Your task to perform on an android device: Open Youtube and go to "Your channel" Image 0: 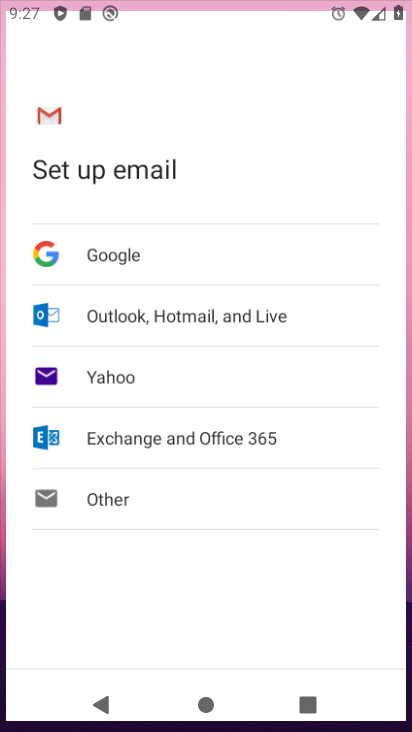
Step 0: drag from (258, 704) to (201, 136)
Your task to perform on an android device: Open Youtube and go to "Your channel" Image 1: 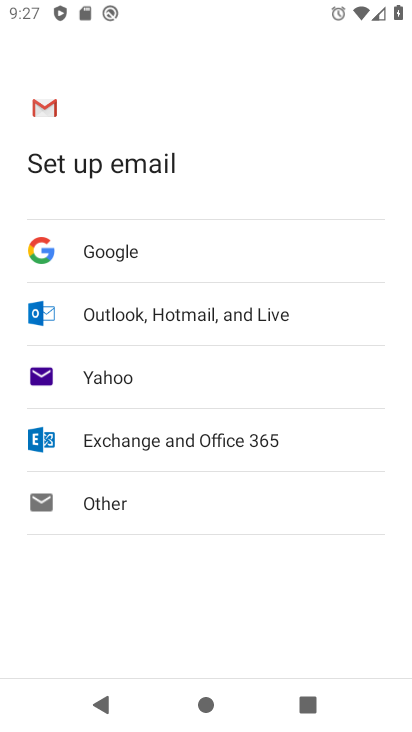
Step 1: press back button
Your task to perform on an android device: Open Youtube and go to "Your channel" Image 2: 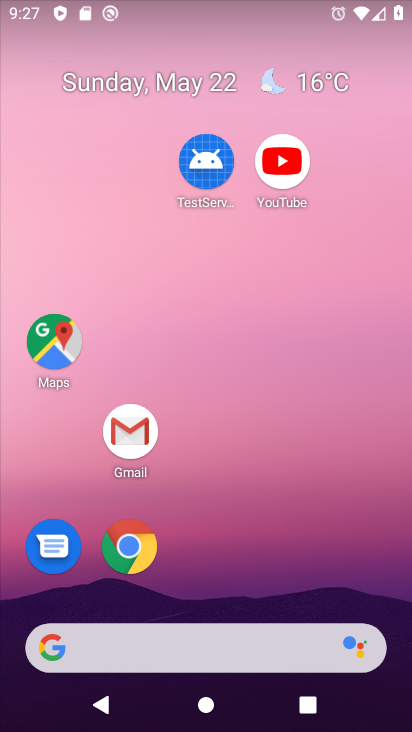
Step 2: drag from (259, 709) to (221, 97)
Your task to perform on an android device: Open Youtube and go to "Your channel" Image 3: 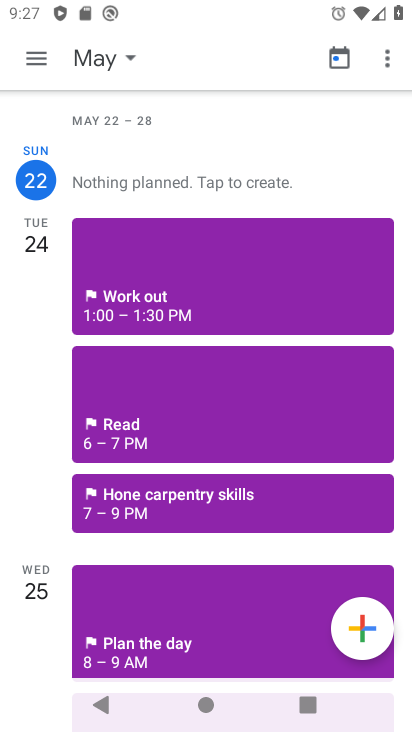
Step 3: press home button
Your task to perform on an android device: Open Youtube and go to "Your channel" Image 4: 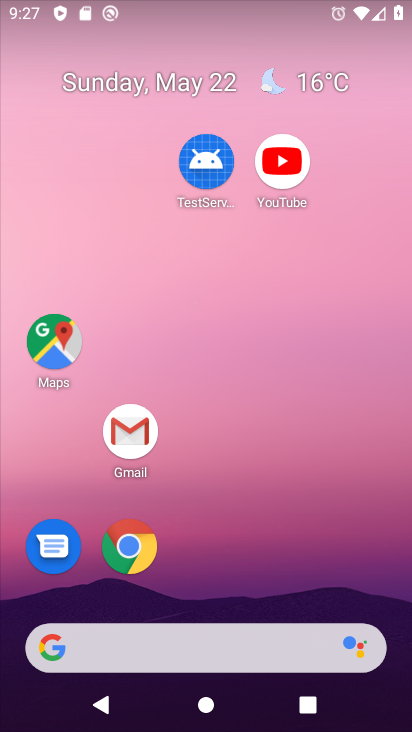
Step 4: drag from (251, 640) to (168, 22)
Your task to perform on an android device: Open Youtube and go to "Your channel" Image 5: 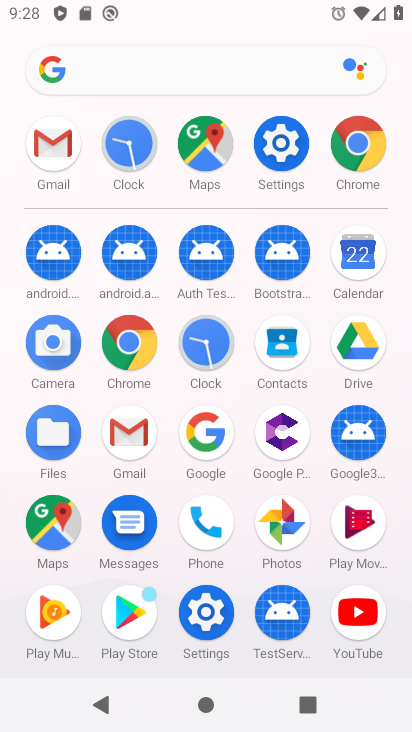
Step 5: click (359, 621)
Your task to perform on an android device: Open Youtube and go to "Your channel" Image 6: 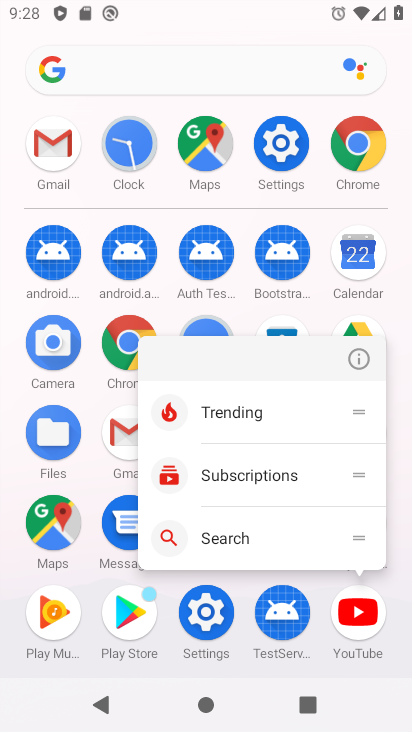
Step 6: click (359, 621)
Your task to perform on an android device: Open Youtube and go to "Your channel" Image 7: 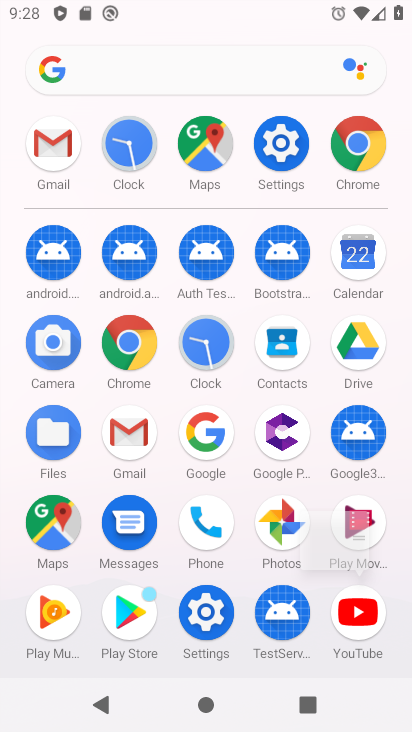
Step 7: click (359, 621)
Your task to perform on an android device: Open Youtube and go to "Your channel" Image 8: 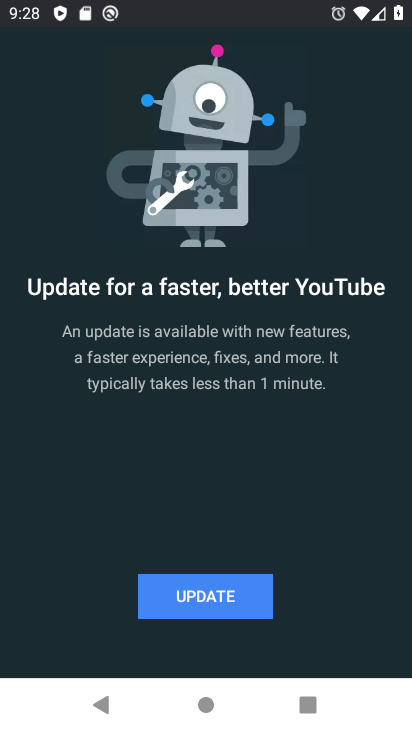
Step 8: click (213, 582)
Your task to perform on an android device: Open Youtube and go to "Your channel" Image 9: 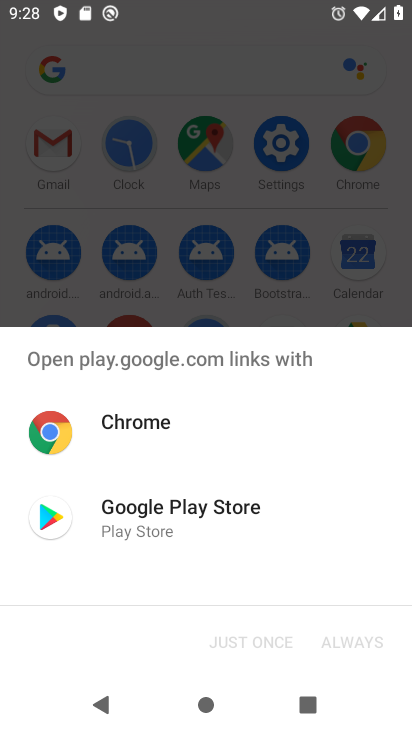
Step 9: click (135, 521)
Your task to perform on an android device: Open Youtube and go to "Your channel" Image 10: 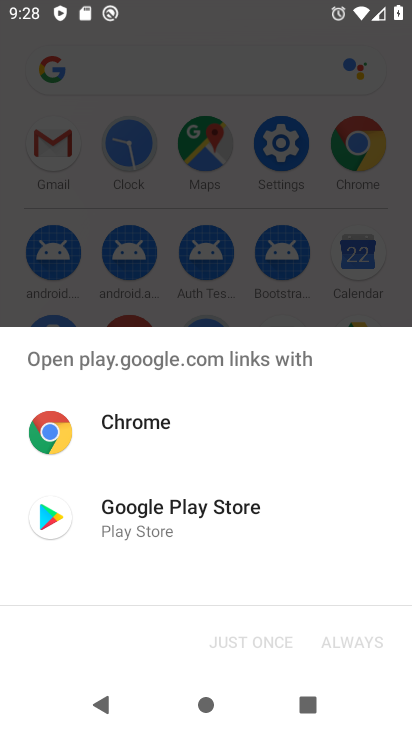
Step 10: click (135, 521)
Your task to perform on an android device: Open Youtube and go to "Your channel" Image 11: 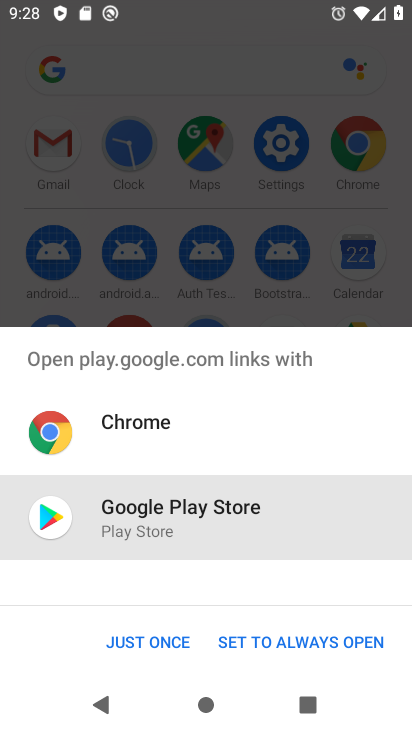
Step 11: click (135, 521)
Your task to perform on an android device: Open Youtube and go to "Your channel" Image 12: 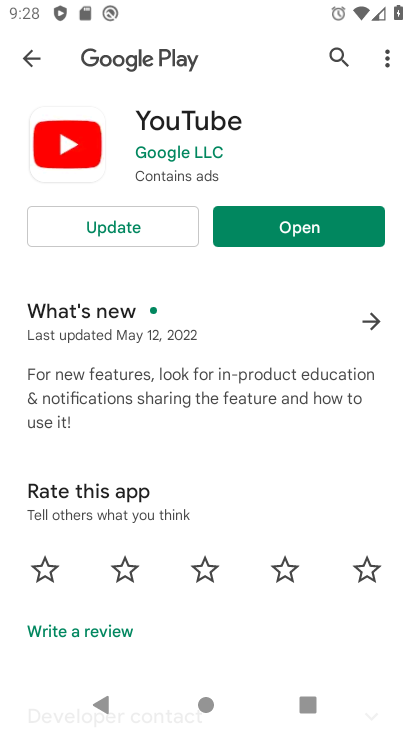
Step 12: click (94, 225)
Your task to perform on an android device: Open Youtube and go to "Your channel" Image 13: 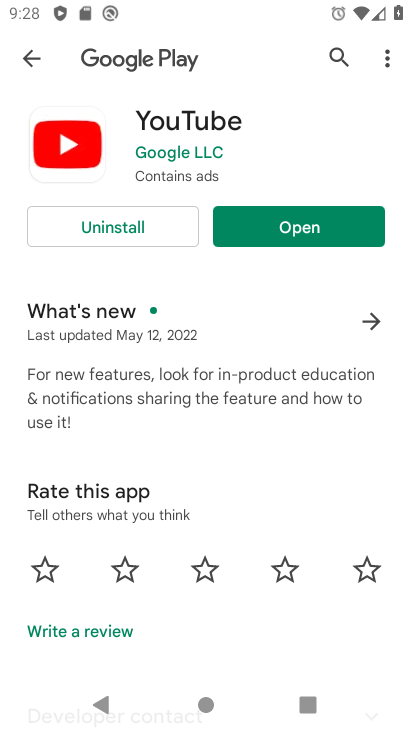
Step 13: click (286, 227)
Your task to perform on an android device: Open Youtube and go to "Your channel" Image 14: 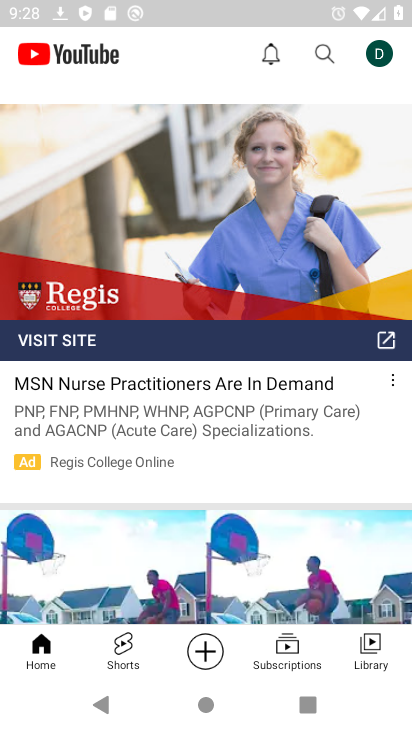
Step 14: task complete